Your task to perform on an android device: turn on showing notifications on the lock screen Image 0: 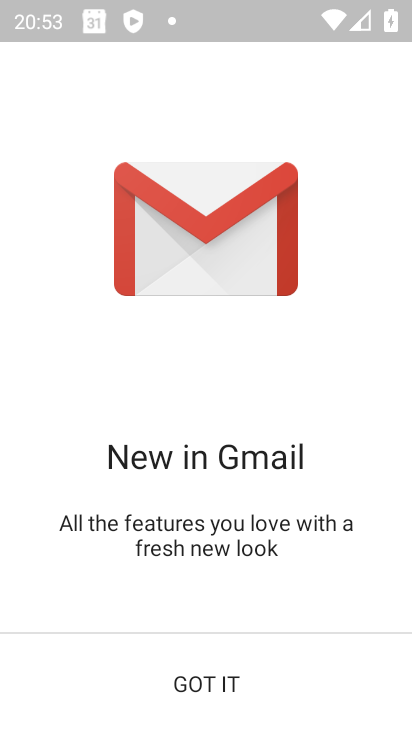
Step 0: press home button
Your task to perform on an android device: turn on showing notifications on the lock screen Image 1: 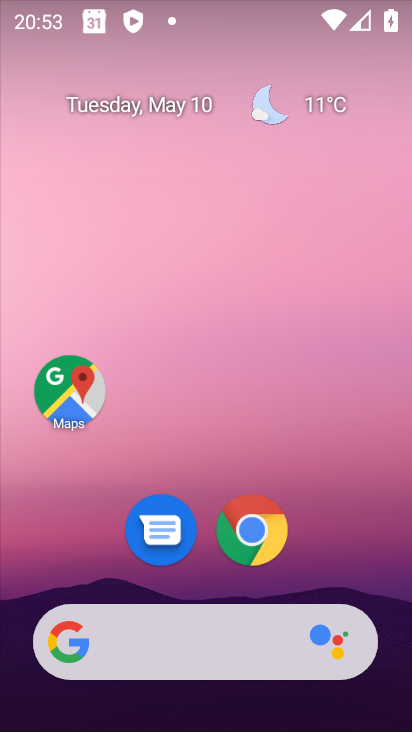
Step 1: drag from (266, 470) to (305, 104)
Your task to perform on an android device: turn on showing notifications on the lock screen Image 2: 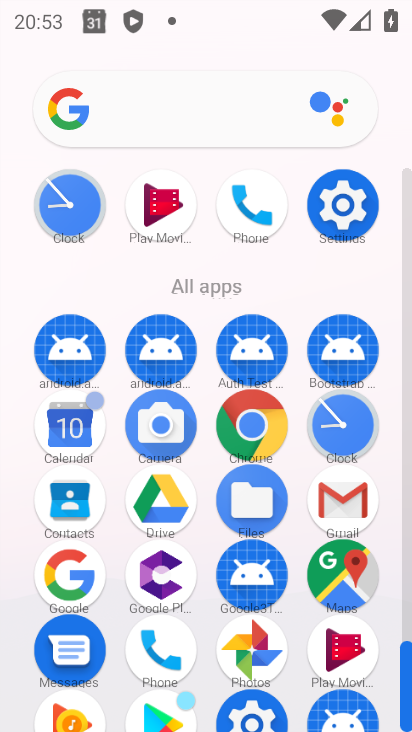
Step 2: click (356, 196)
Your task to perform on an android device: turn on showing notifications on the lock screen Image 3: 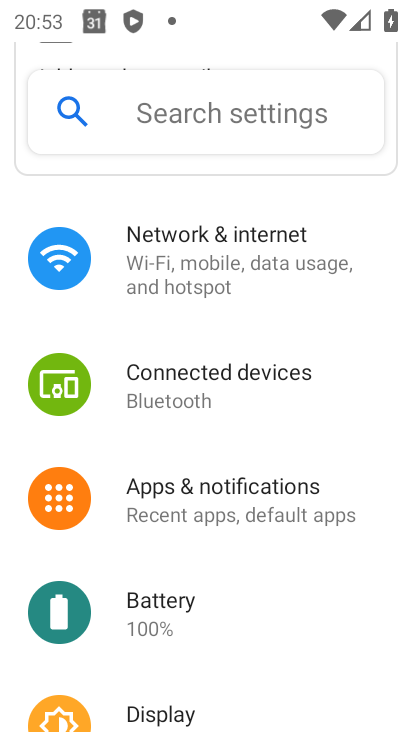
Step 3: click (222, 506)
Your task to perform on an android device: turn on showing notifications on the lock screen Image 4: 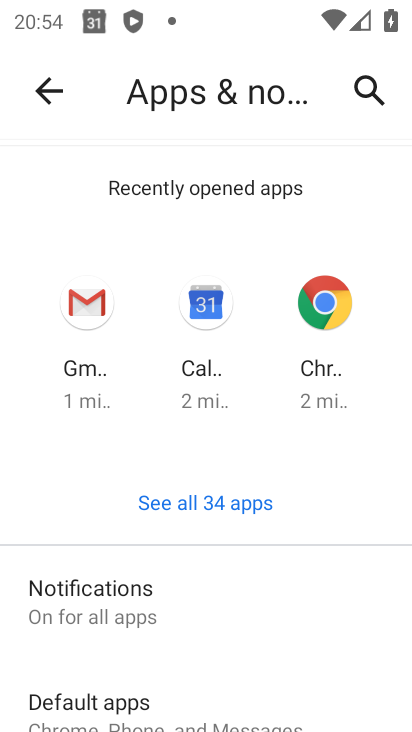
Step 4: click (95, 607)
Your task to perform on an android device: turn on showing notifications on the lock screen Image 5: 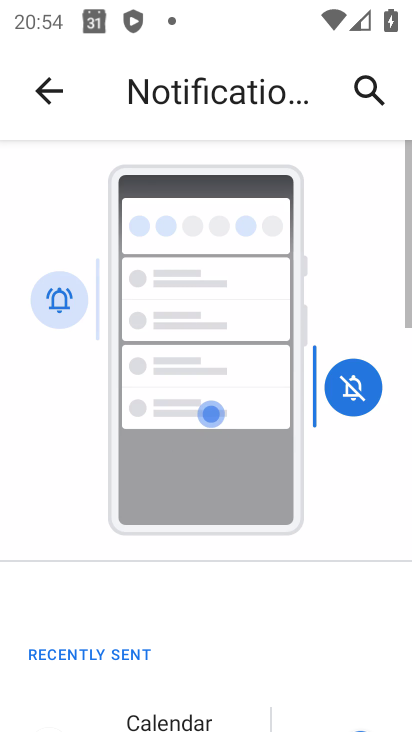
Step 5: drag from (218, 639) to (260, 146)
Your task to perform on an android device: turn on showing notifications on the lock screen Image 6: 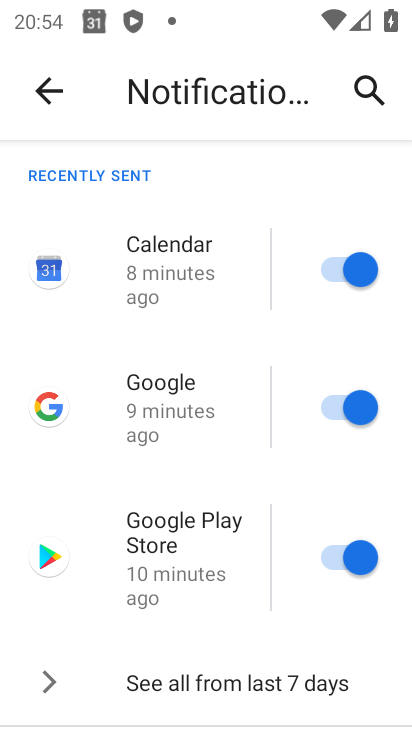
Step 6: drag from (213, 628) to (245, 215)
Your task to perform on an android device: turn on showing notifications on the lock screen Image 7: 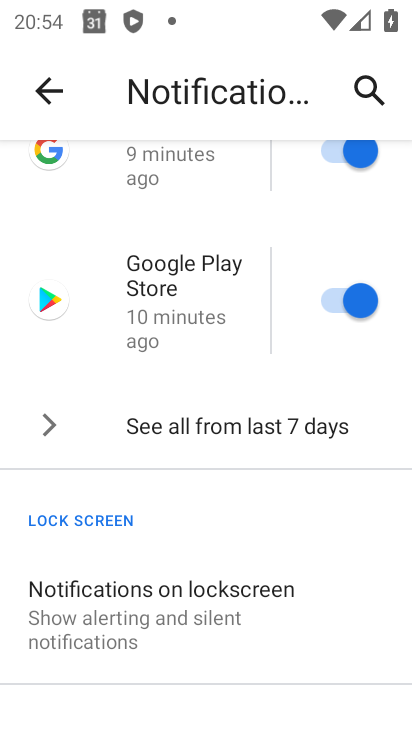
Step 7: click (220, 603)
Your task to perform on an android device: turn on showing notifications on the lock screen Image 8: 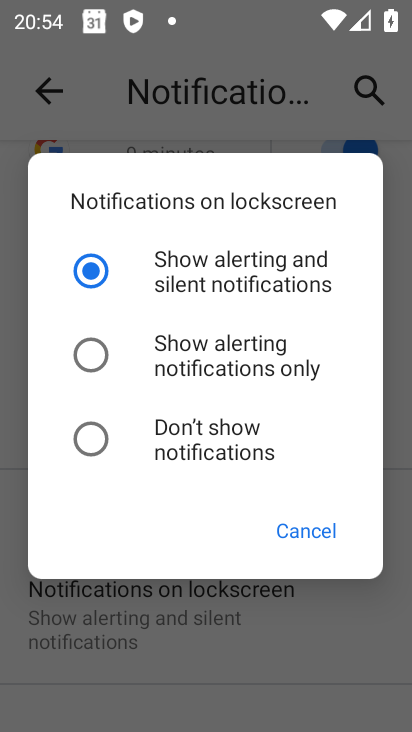
Step 8: click (246, 364)
Your task to perform on an android device: turn on showing notifications on the lock screen Image 9: 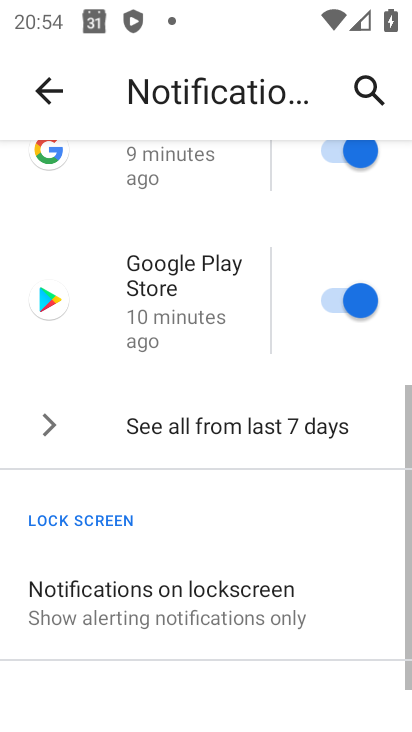
Step 9: task complete